Your task to perform on an android device: toggle airplane mode Image 0: 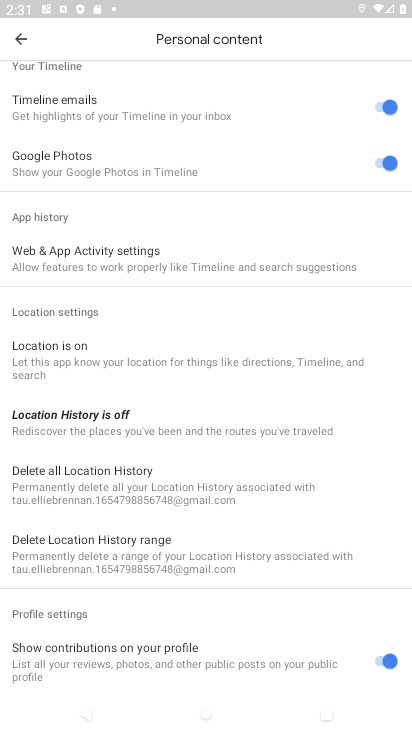
Step 0: press home button
Your task to perform on an android device: toggle airplane mode Image 1: 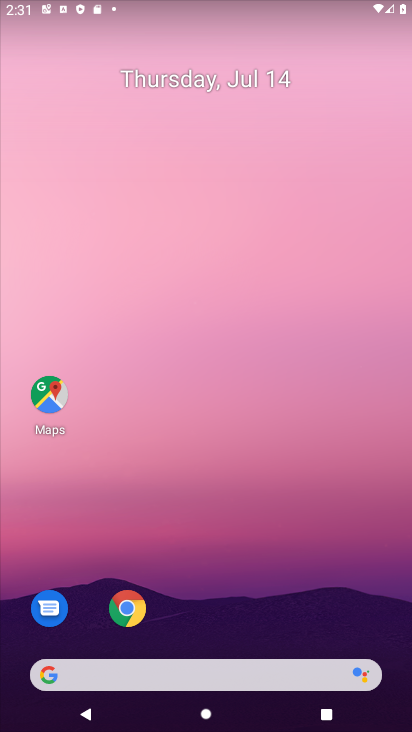
Step 1: drag from (378, 625) to (340, 49)
Your task to perform on an android device: toggle airplane mode Image 2: 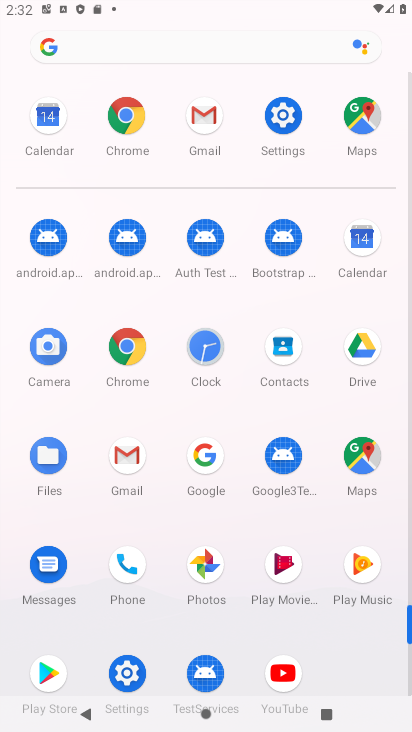
Step 2: click (124, 674)
Your task to perform on an android device: toggle airplane mode Image 3: 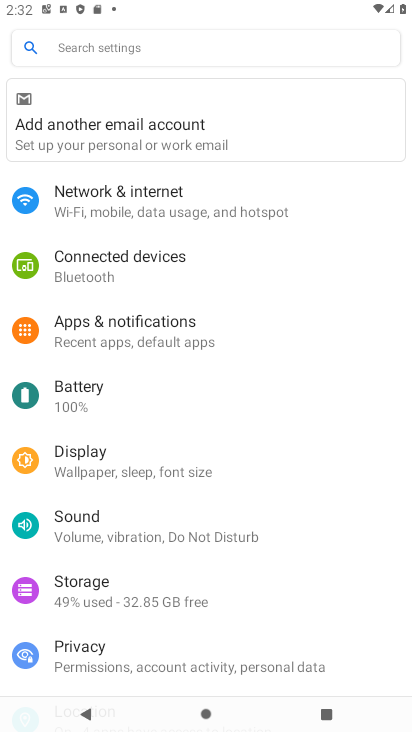
Step 3: click (112, 193)
Your task to perform on an android device: toggle airplane mode Image 4: 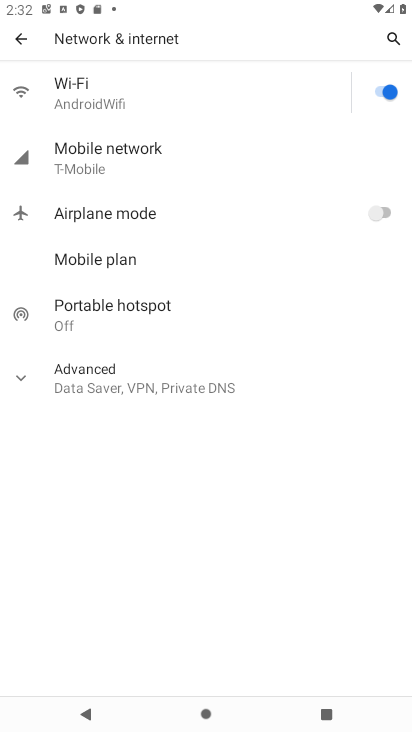
Step 4: click (384, 209)
Your task to perform on an android device: toggle airplane mode Image 5: 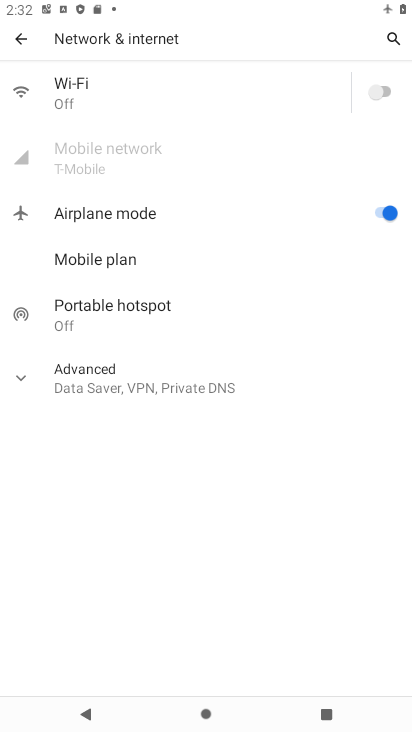
Step 5: task complete